Your task to perform on an android device: toggle sleep mode Image 0: 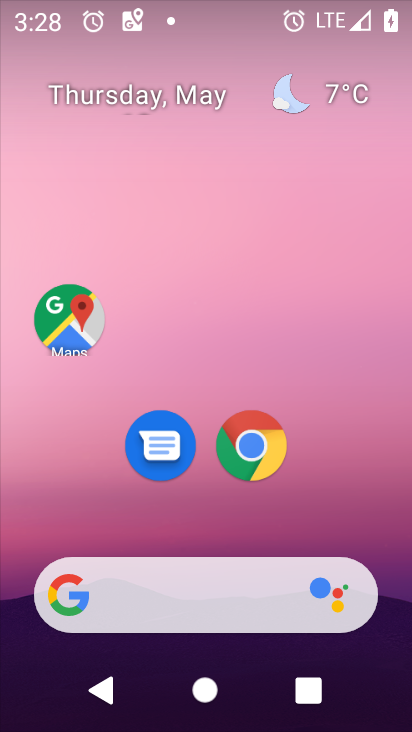
Step 0: drag from (370, 548) to (367, 15)
Your task to perform on an android device: toggle sleep mode Image 1: 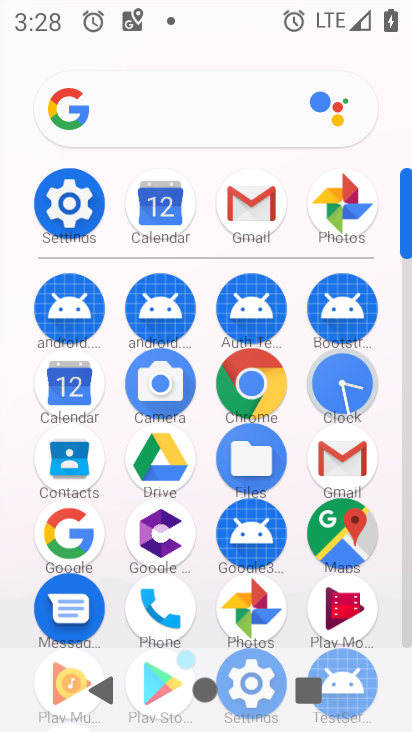
Step 1: click (68, 208)
Your task to perform on an android device: toggle sleep mode Image 2: 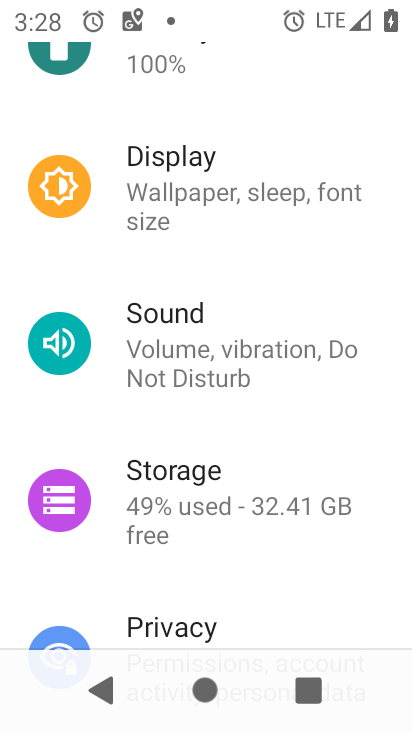
Step 2: click (187, 198)
Your task to perform on an android device: toggle sleep mode Image 3: 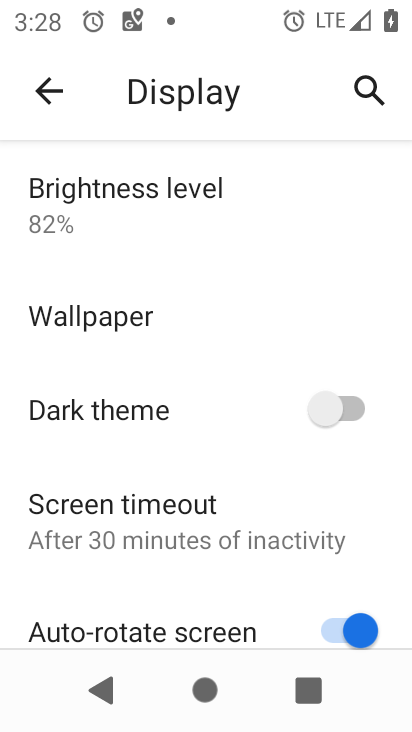
Step 3: drag from (180, 516) to (167, 265)
Your task to perform on an android device: toggle sleep mode Image 4: 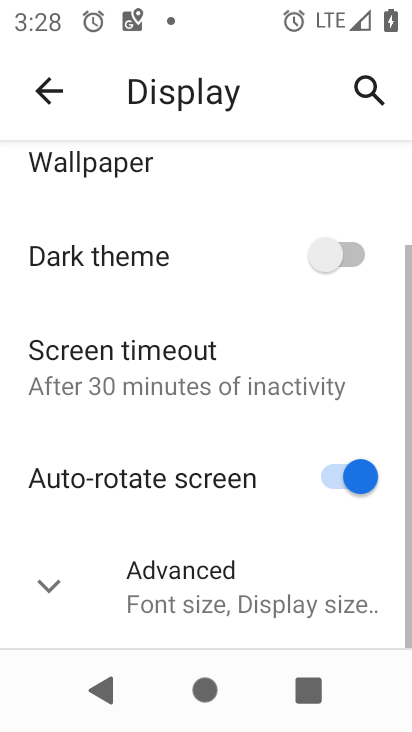
Step 4: click (44, 617)
Your task to perform on an android device: toggle sleep mode Image 5: 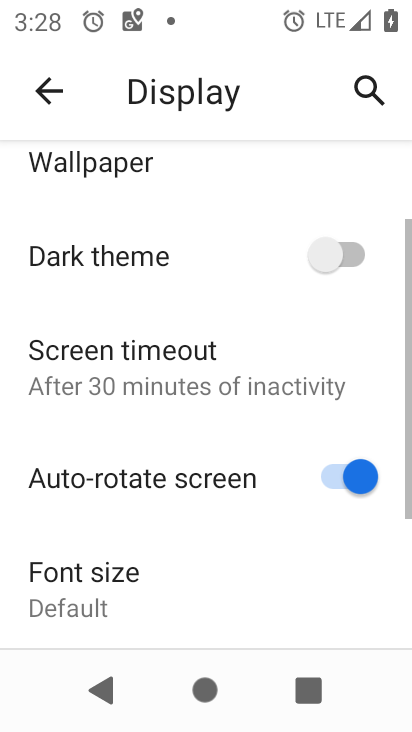
Step 5: task complete